Your task to perform on an android device: allow notifications from all sites in the chrome app Image 0: 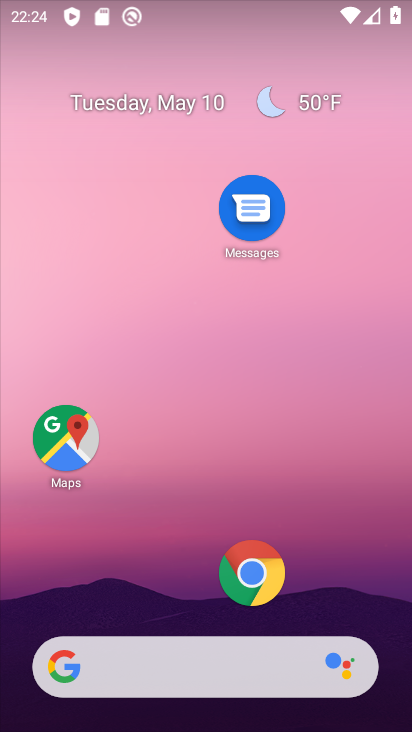
Step 0: click (251, 579)
Your task to perform on an android device: allow notifications from all sites in the chrome app Image 1: 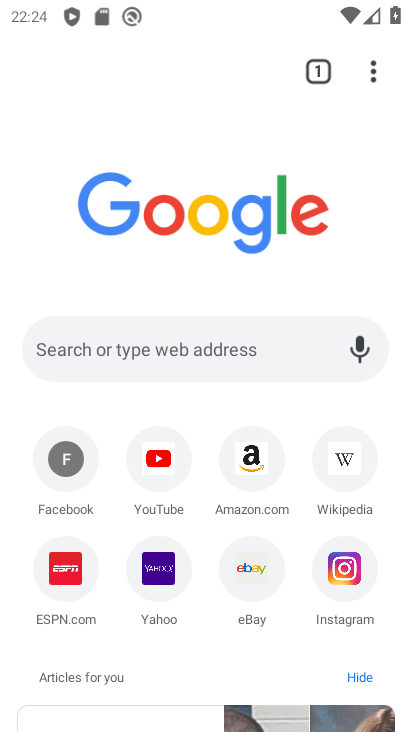
Step 1: click (364, 75)
Your task to perform on an android device: allow notifications from all sites in the chrome app Image 2: 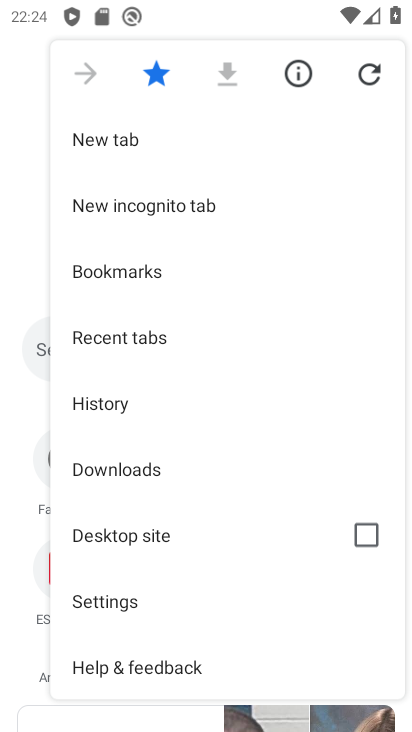
Step 2: click (129, 610)
Your task to perform on an android device: allow notifications from all sites in the chrome app Image 3: 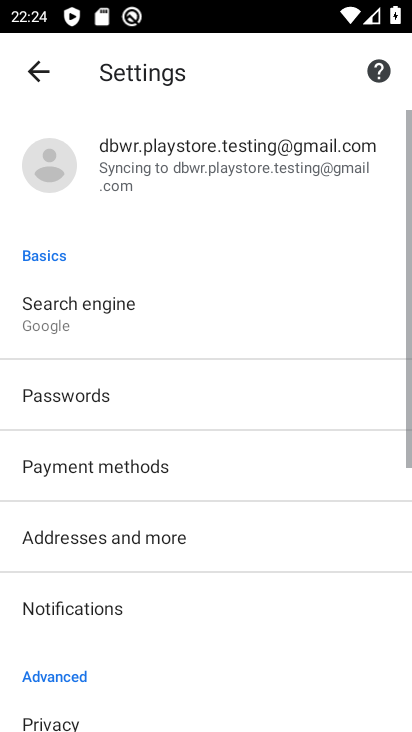
Step 3: drag from (210, 601) to (176, 3)
Your task to perform on an android device: allow notifications from all sites in the chrome app Image 4: 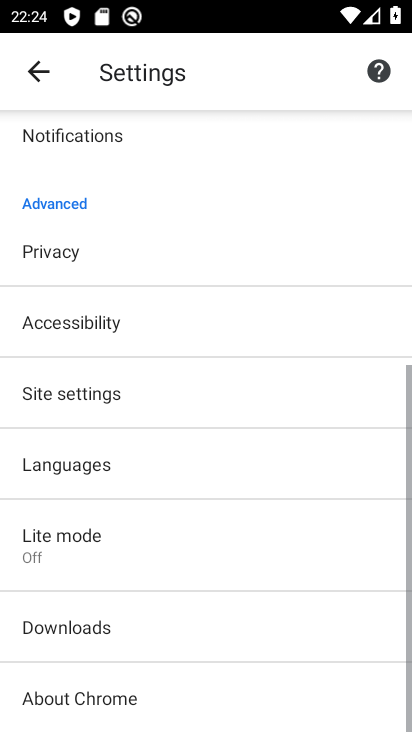
Step 4: click (75, 390)
Your task to perform on an android device: allow notifications from all sites in the chrome app Image 5: 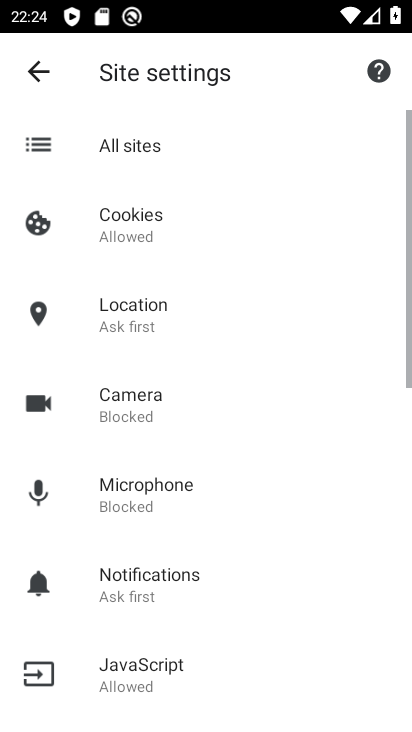
Step 5: drag from (262, 604) to (234, 400)
Your task to perform on an android device: allow notifications from all sites in the chrome app Image 6: 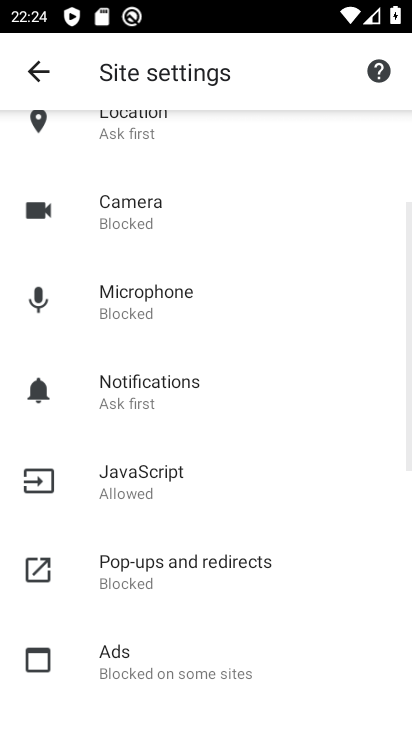
Step 6: click (133, 407)
Your task to perform on an android device: allow notifications from all sites in the chrome app Image 7: 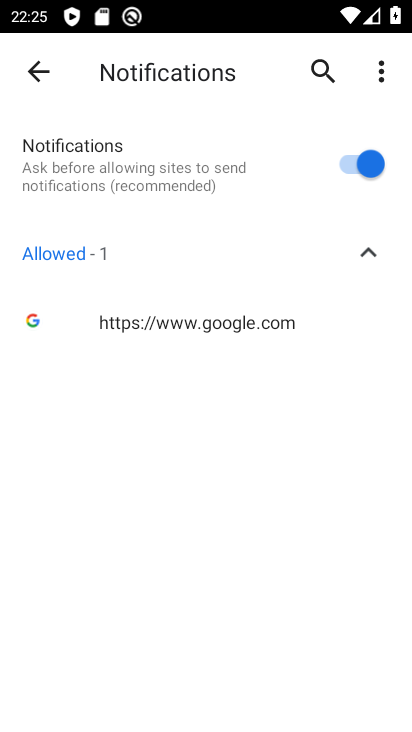
Step 7: task complete